Your task to perform on an android device: Search for the new ikea dresser Image 0: 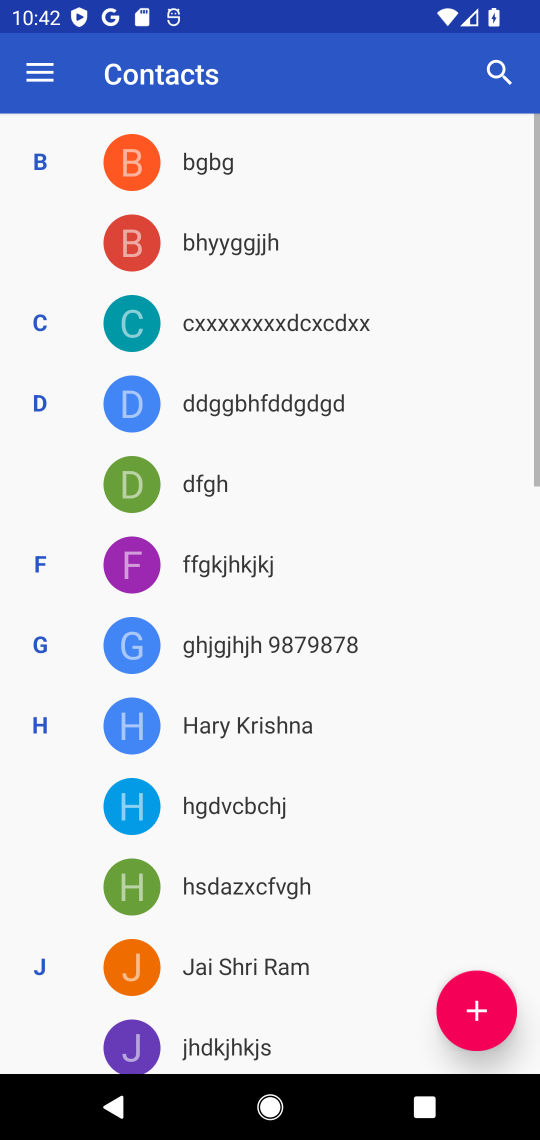
Step 0: press home button
Your task to perform on an android device: Search for the new ikea dresser Image 1: 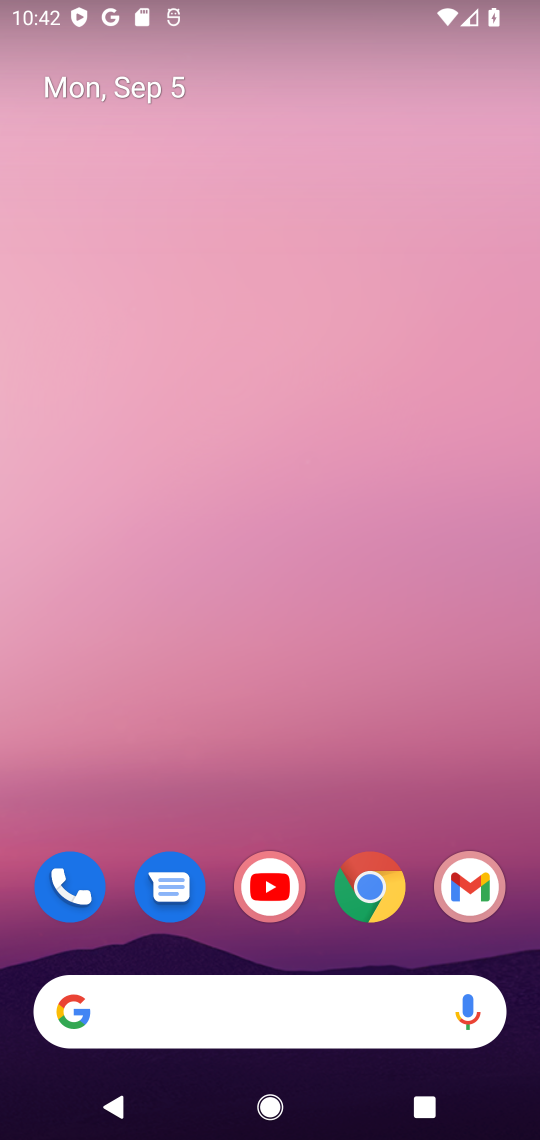
Step 1: click (370, 888)
Your task to perform on an android device: Search for the new ikea dresser Image 2: 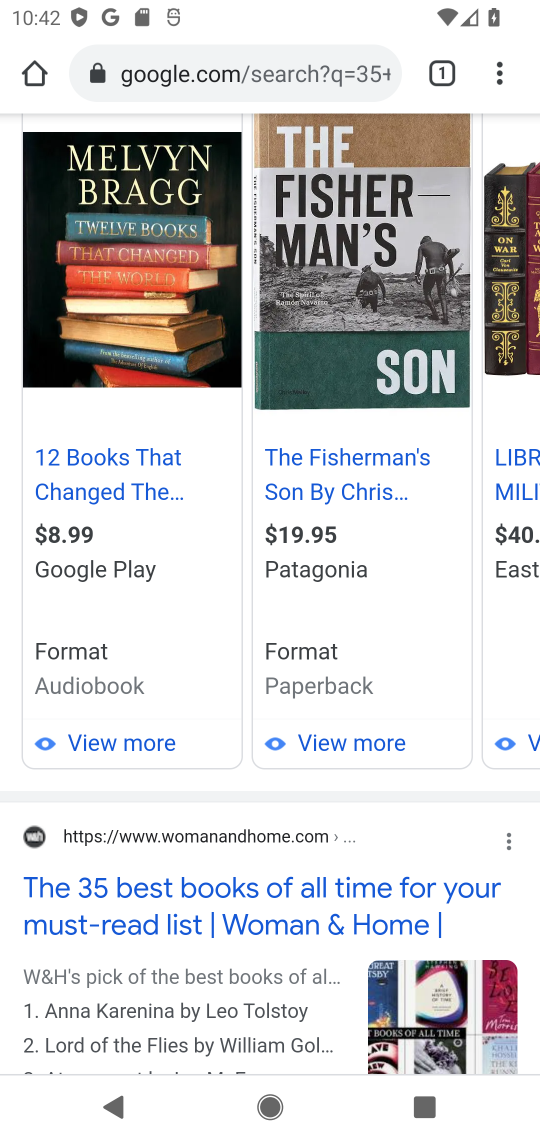
Step 2: click (301, 73)
Your task to perform on an android device: Search for the new ikea dresser Image 3: 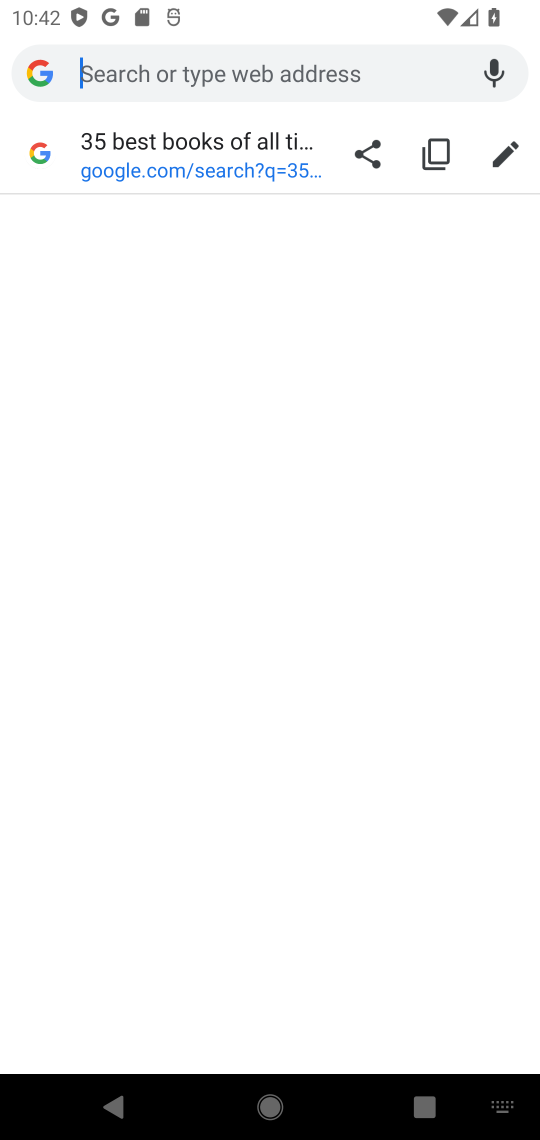
Step 3: type "new ikea dresser"
Your task to perform on an android device: Search for the new ikea dresser Image 4: 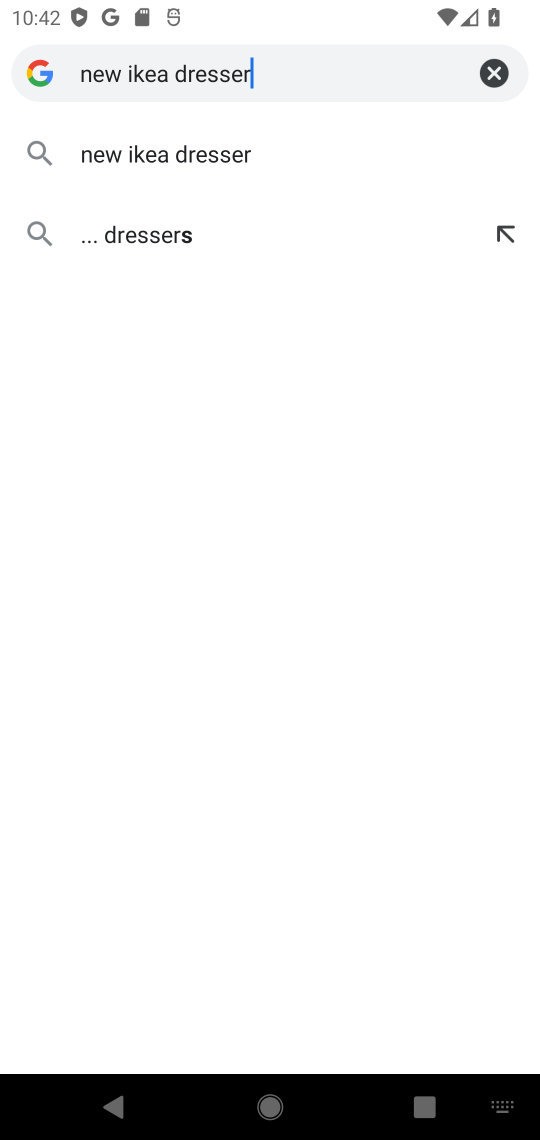
Step 4: press enter
Your task to perform on an android device: Search for the new ikea dresser Image 5: 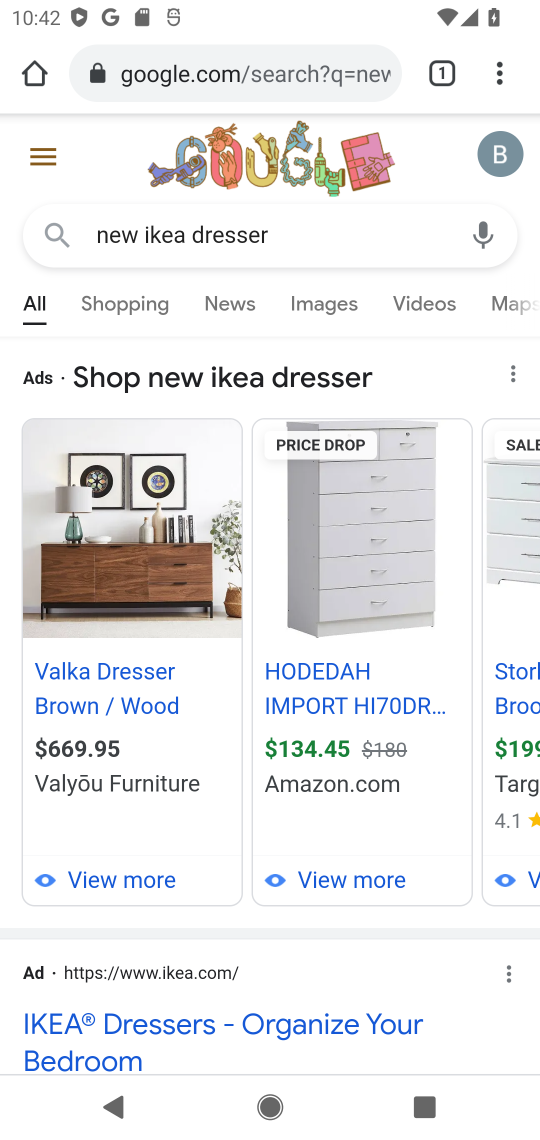
Step 5: click (133, 1025)
Your task to perform on an android device: Search for the new ikea dresser Image 6: 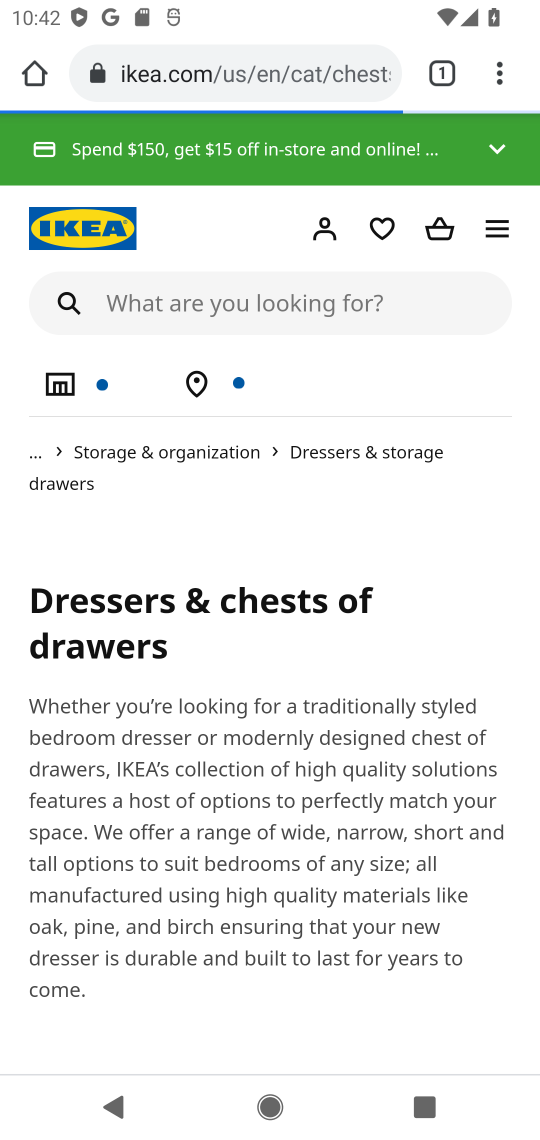
Step 6: drag from (260, 829) to (270, 515)
Your task to perform on an android device: Search for the new ikea dresser Image 7: 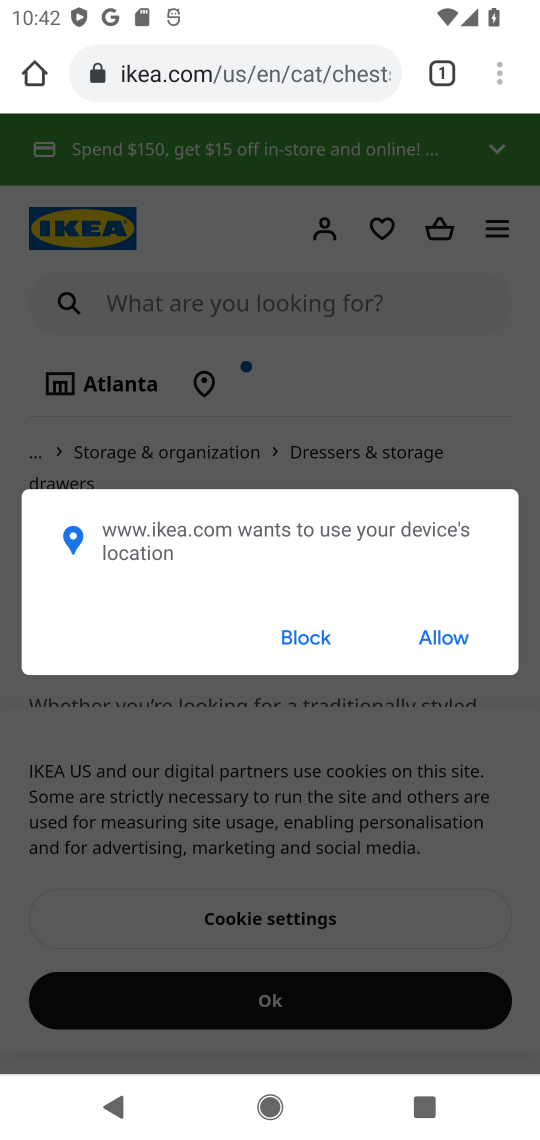
Step 7: click (462, 655)
Your task to perform on an android device: Search for the new ikea dresser Image 8: 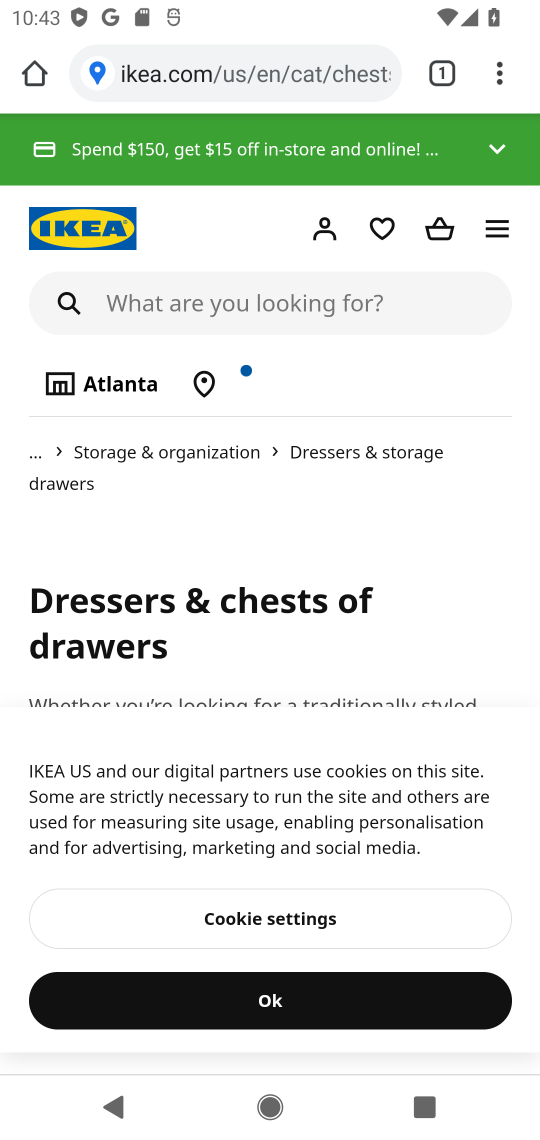
Step 8: click (343, 1010)
Your task to perform on an android device: Search for the new ikea dresser Image 9: 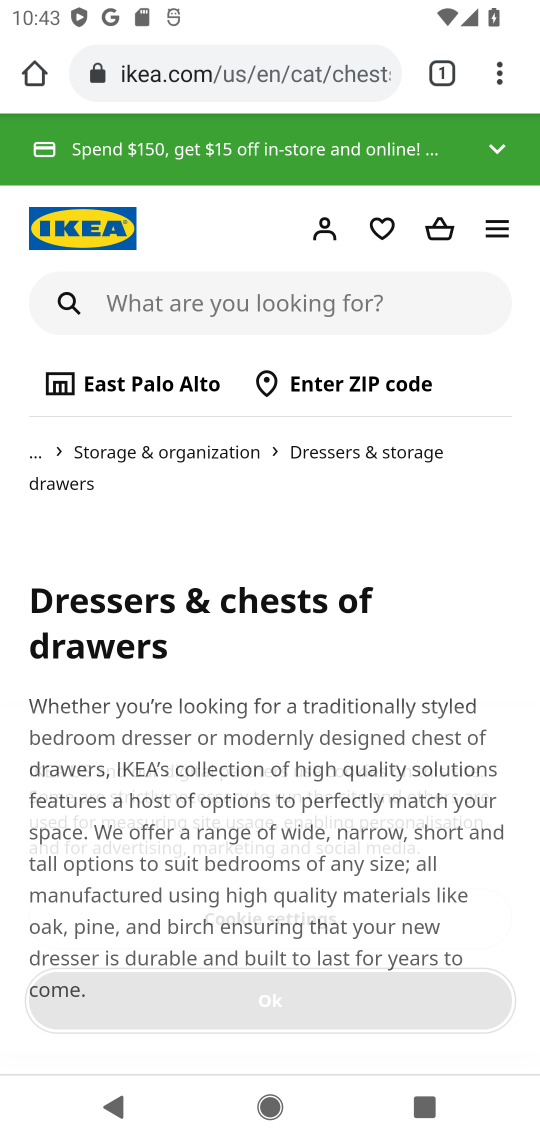
Step 9: drag from (367, 719) to (341, 353)
Your task to perform on an android device: Search for the new ikea dresser Image 10: 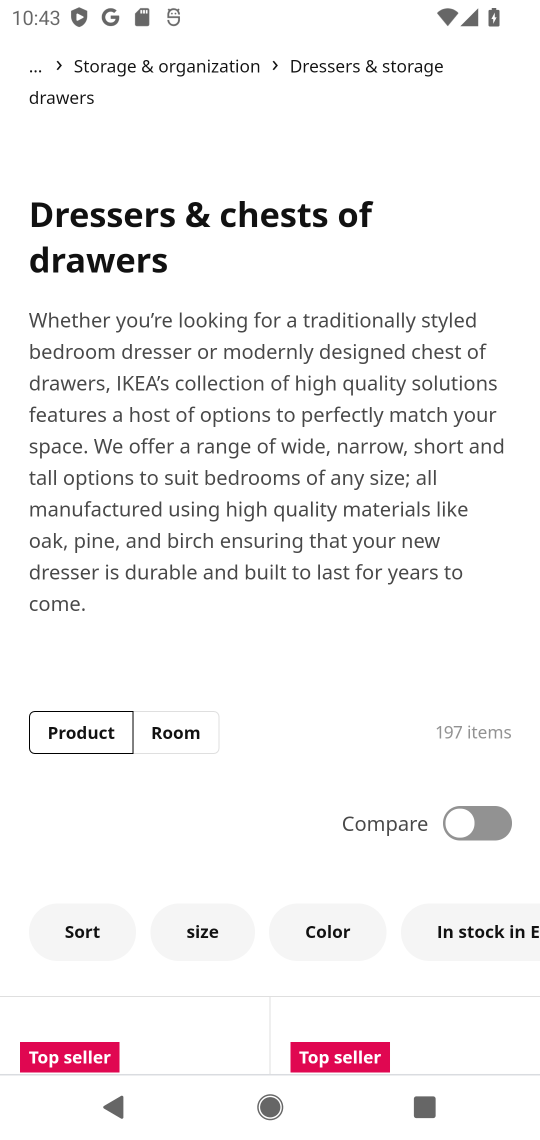
Step 10: drag from (399, 581) to (460, 311)
Your task to perform on an android device: Search for the new ikea dresser Image 11: 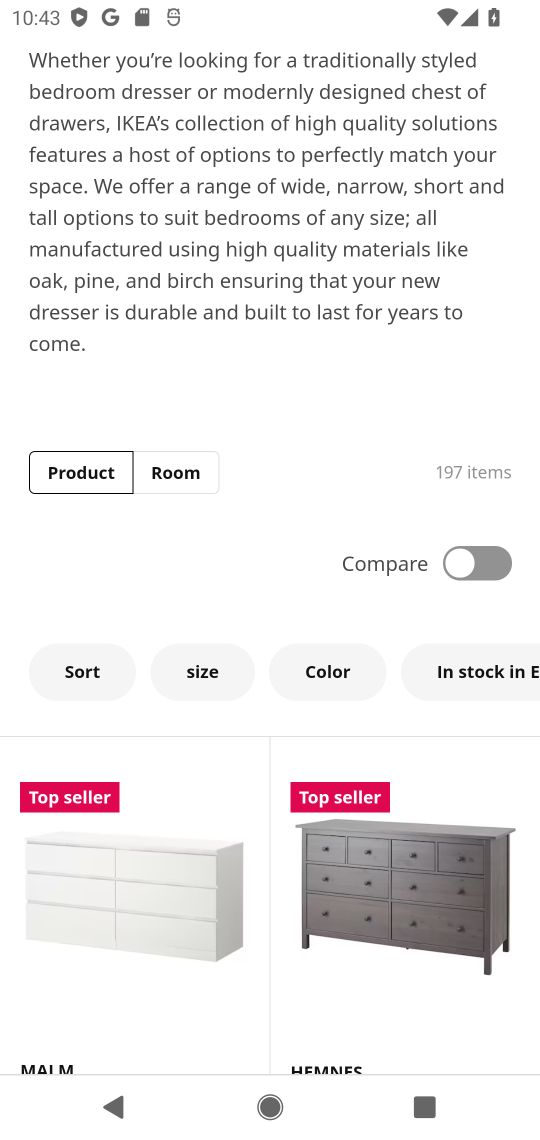
Step 11: drag from (270, 502) to (296, 112)
Your task to perform on an android device: Search for the new ikea dresser Image 12: 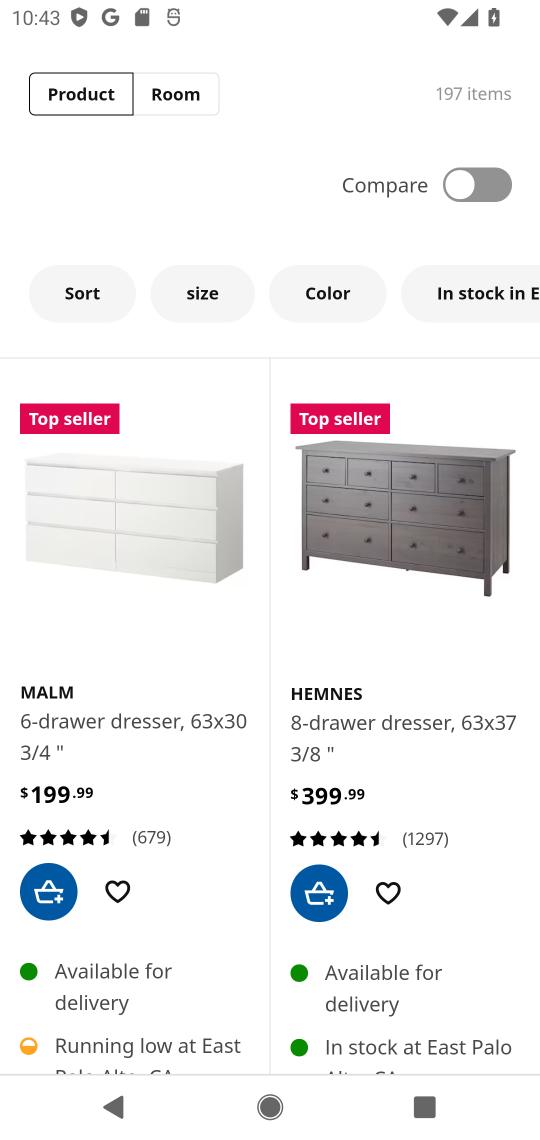
Step 12: drag from (261, 511) to (268, 893)
Your task to perform on an android device: Search for the new ikea dresser Image 13: 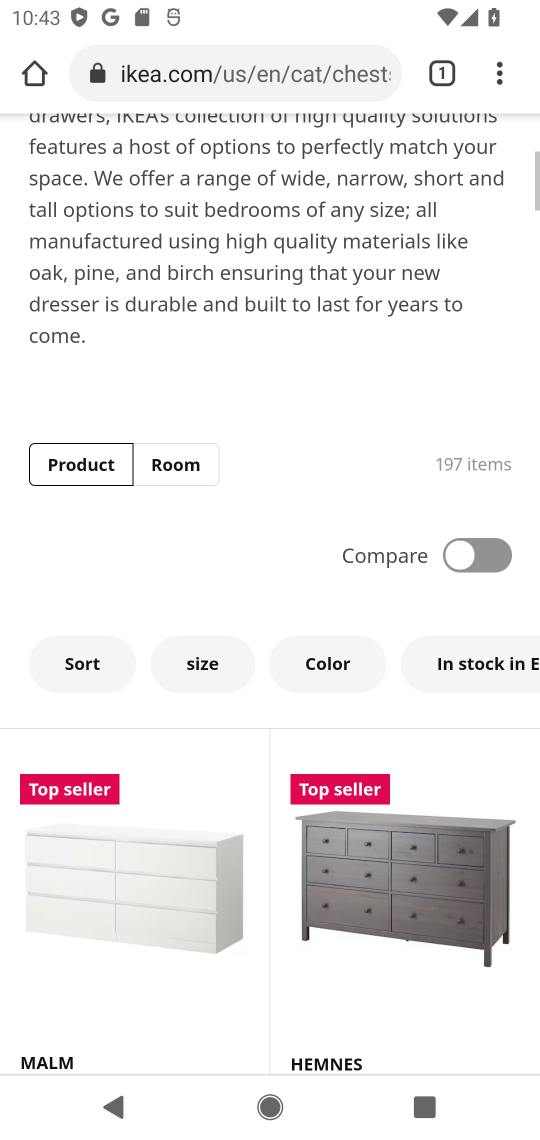
Step 13: click (315, 790)
Your task to perform on an android device: Search for the new ikea dresser Image 14: 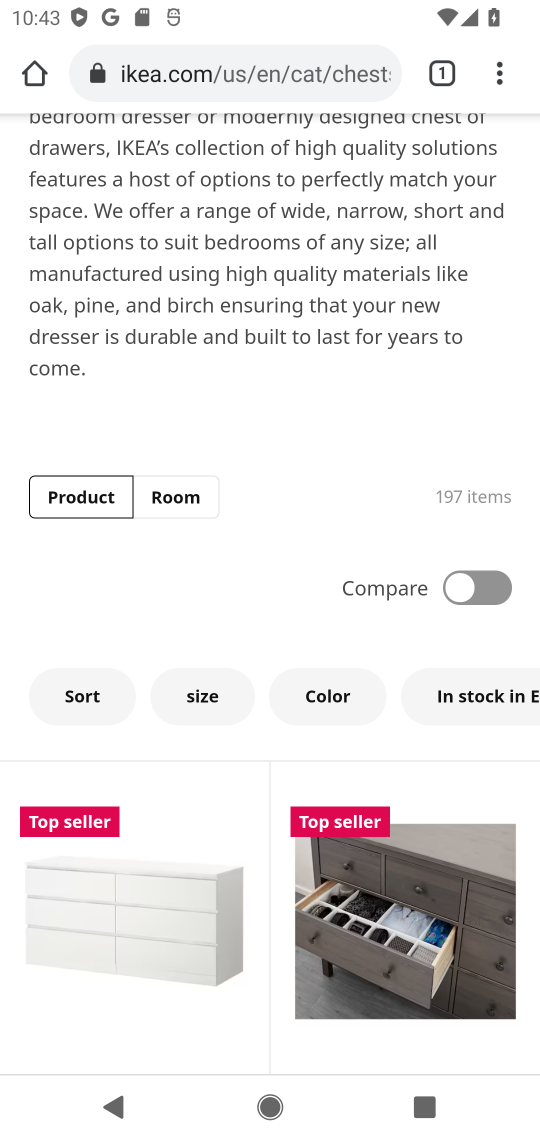
Step 14: click (286, 768)
Your task to perform on an android device: Search for the new ikea dresser Image 15: 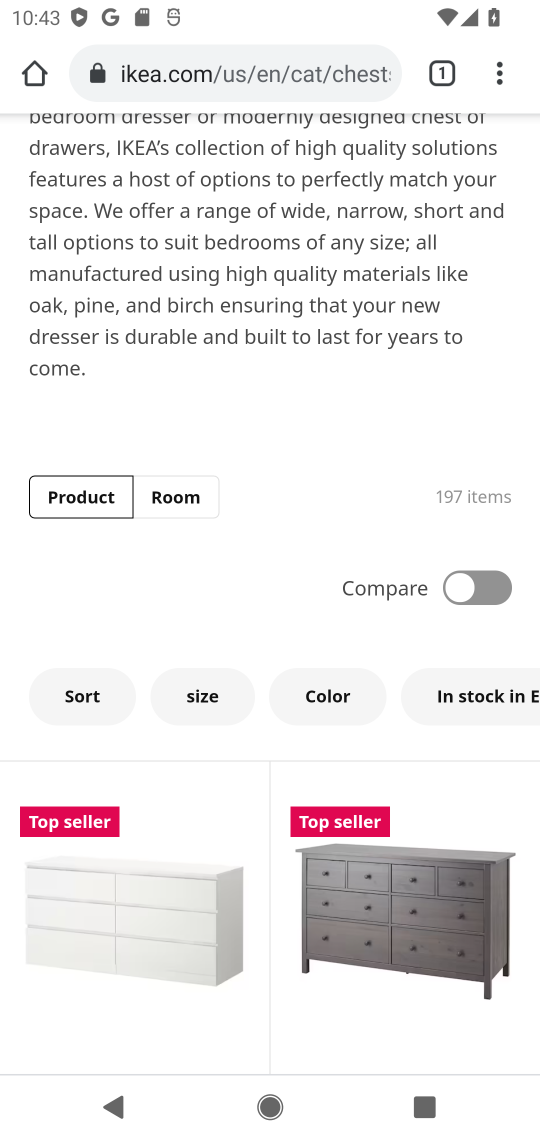
Step 15: task complete